Your task to perform on an android device: Open the phone app and click the voicemail tab. Image 0: 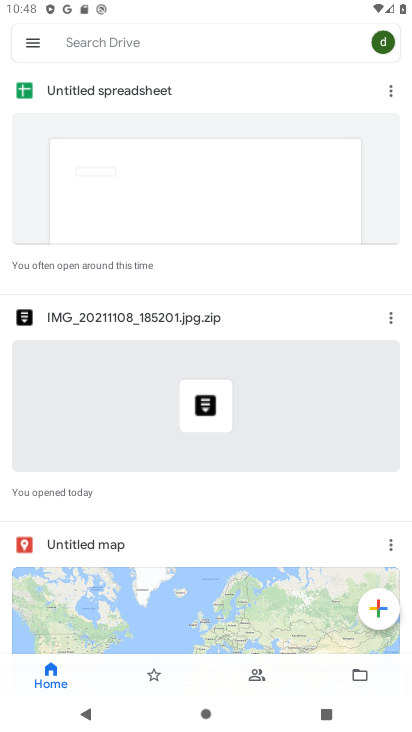
Step 0: press home button
Your task to perform on an android device: Open the phone app and click the voicemail tab. Image 1: 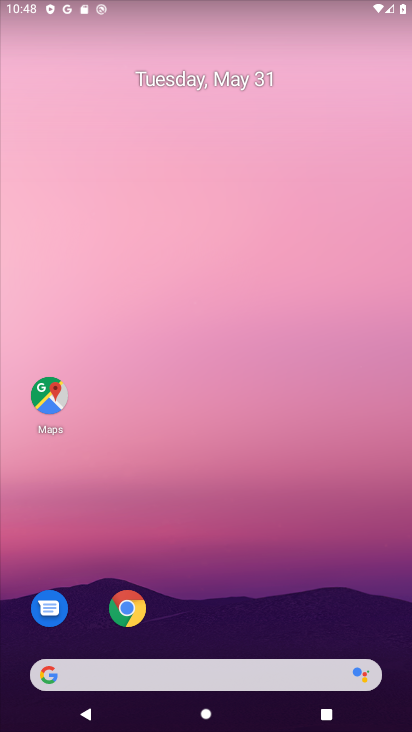
Step 1: drag from (286, 560) to (288, 56)
Your task to perform on an android device: Open the phone app and click the voicemail tab. Image 2: 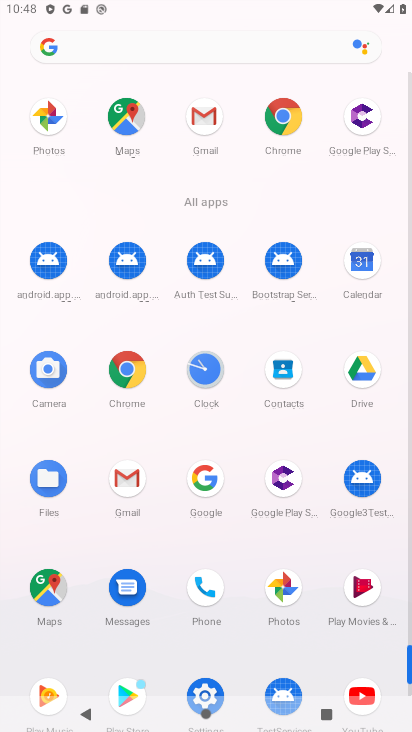
Step 2: click (187, 585)
Your task to perform on an android device: Open the phone app and click the voicemail tab. Image 3: 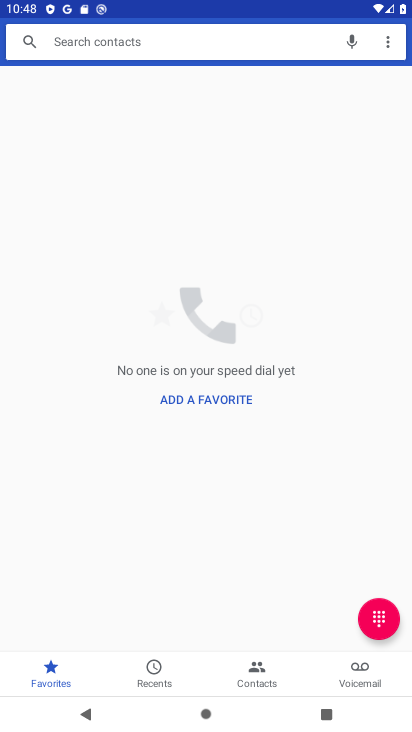
Step 3: click (372, 668)
Your task to perform on an android device: Open the phone app and click the voicemail tab. Image 4: 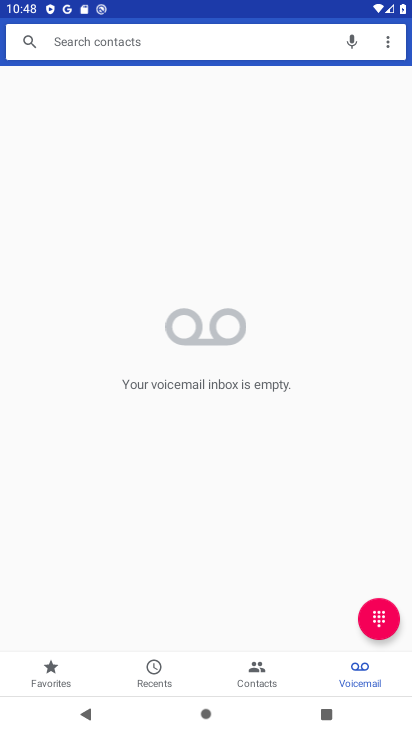
Step 4: task complete